Your task to perform on an android device: open a new tab in the chrome app Image 0: 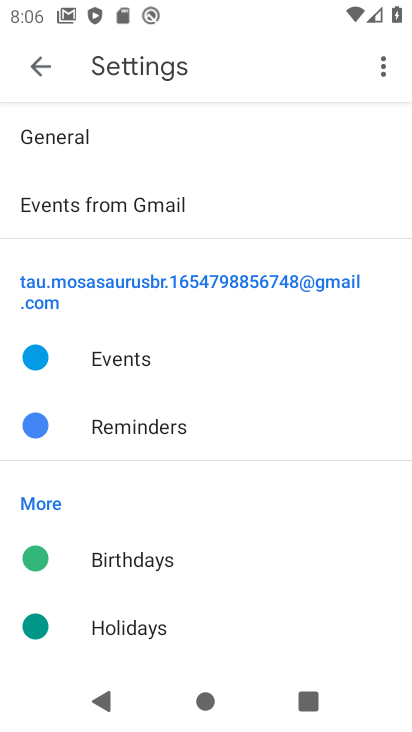
Step 0: press home button
Your task to perform on an android device: open a new tab in the chrome app Image 1: 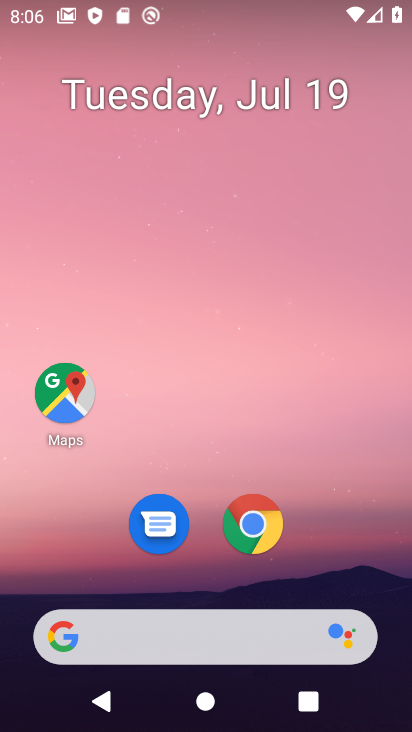
Step 1: click (261, 534)
Your task to perform on an android device: open a new tab in the chrome app Image 2: 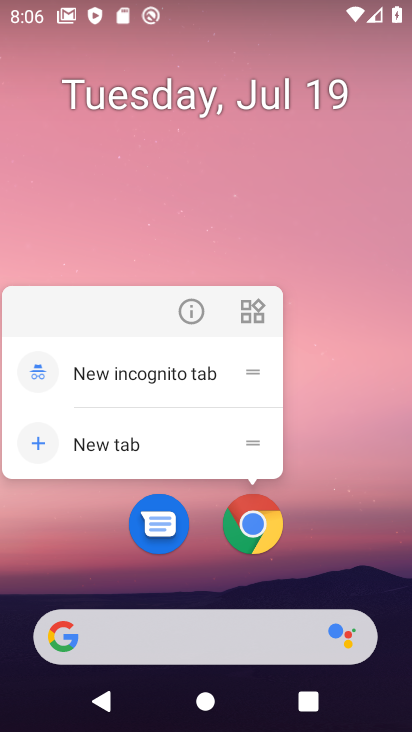
Step 2: click (249, 520)
Your task to perform on an android device: open a new tab in the chrome app Image 3: 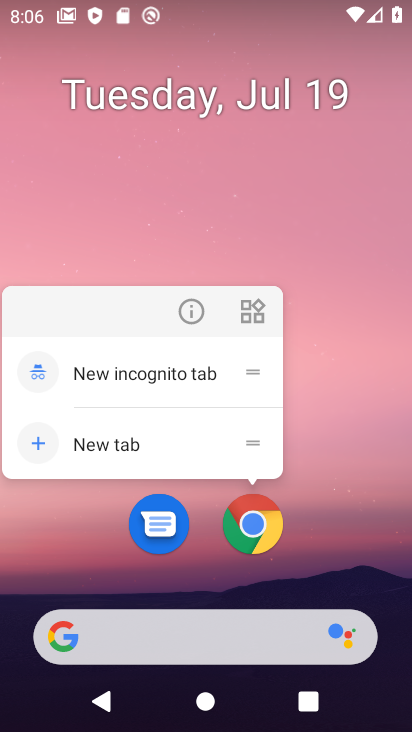
Step 3: click (263, 529)
Your task to perform on an android device: open a new tab in the chrome app Image 4: 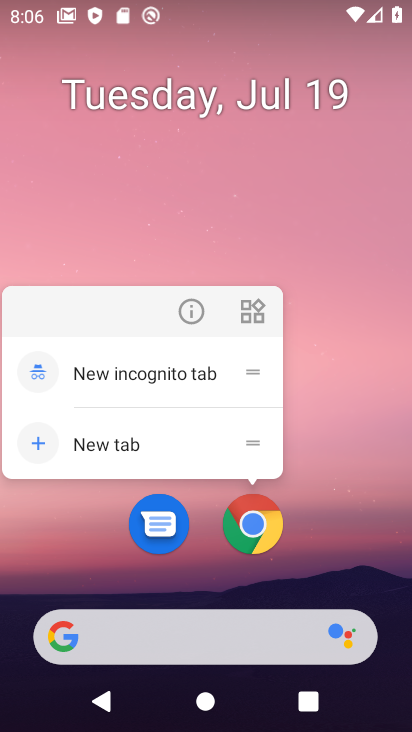
Step 4: click (252, 518)
Your task to perform on an android device: open a new tab in the chrome app Image 5: 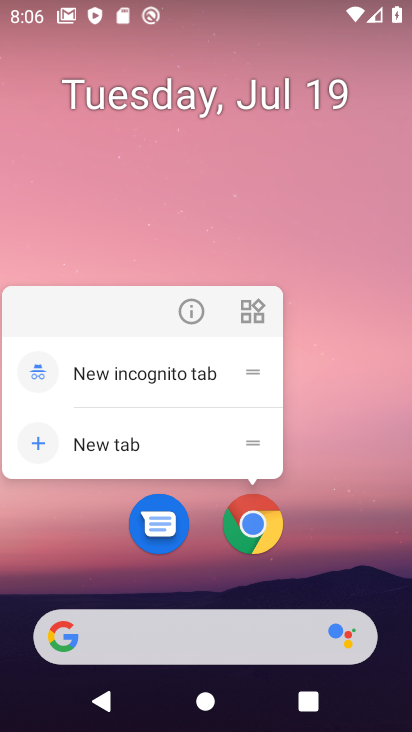
Step 5: click (253, 531)
Your task to perform on an android device: open a new tab in the chrome app Image 6: 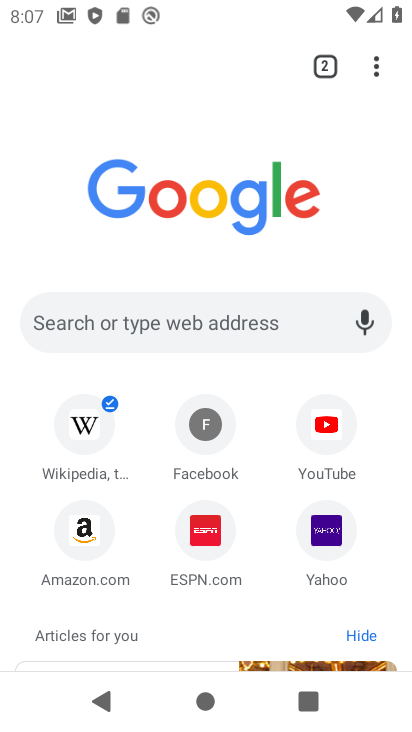
Step 6: task complete